Your task to perform on an android device: turn on wifi Image 0: 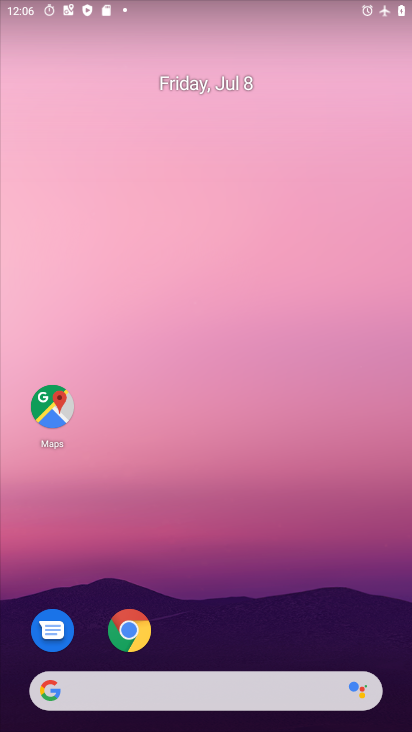
Step 0: drag from (215, 617) to (215, 239)
Your task to perform on an android device: turn on wifi Image 1: 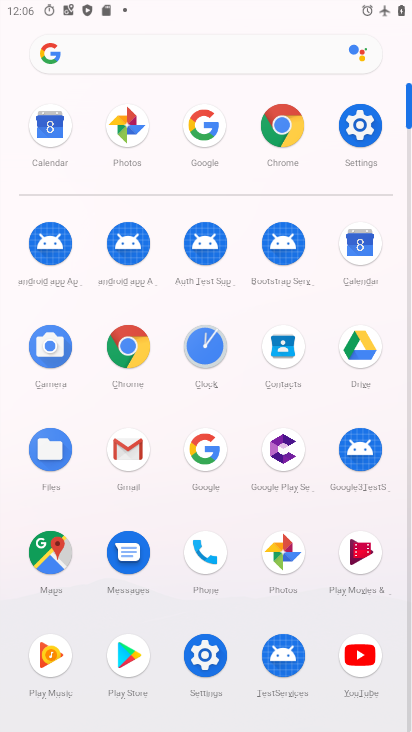
Step 1: click (367, 135)
Your task to perform on an android device: turn on wifi Image 2: 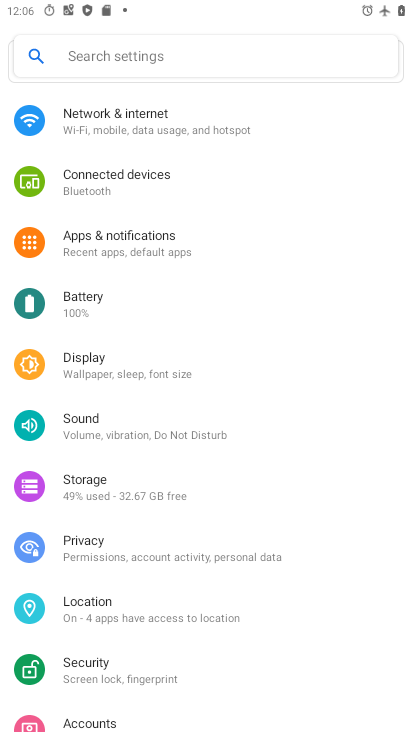
Step 2: click (214, 127)
Your task to perform on an android device: turn on wifi Image 3: 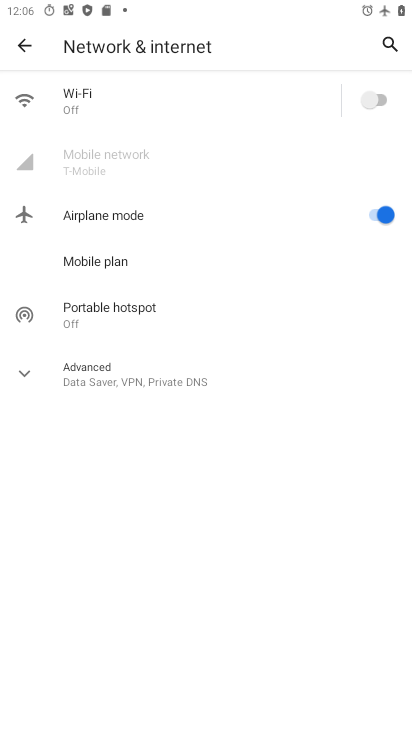
Step 3: click (375, 100)
Your task to perform on an android device: turn on wifi Image 4: 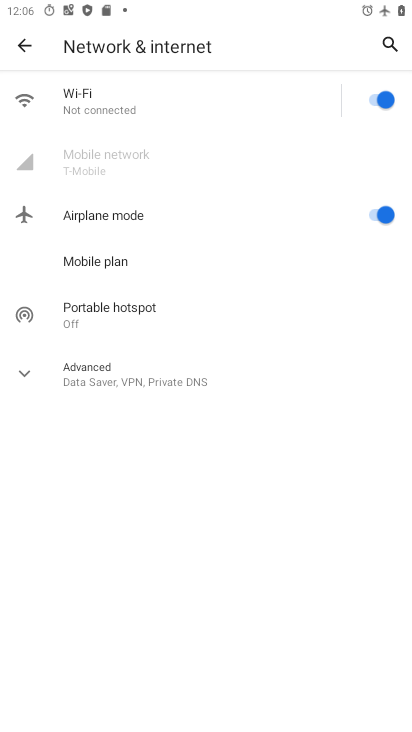
Step 4: task complete